Your task to perform on an android device: Turn off the flashlight Image 0: 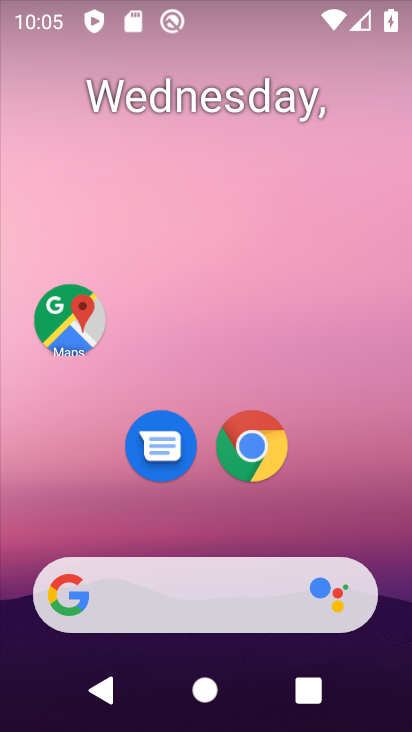
Step 0: drag from (175, 503) to (182, 0)
Your task to perform on an android device: Turn off the flashlight Image 1: 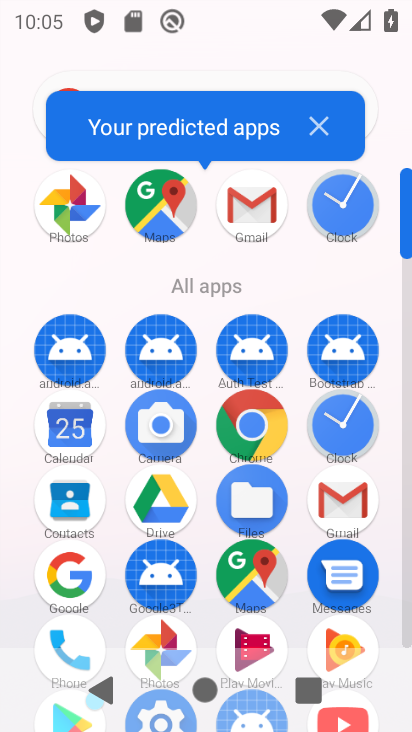
Step 1: task complete